Your task to perform on an android device: Open accessibility settings Image 0: 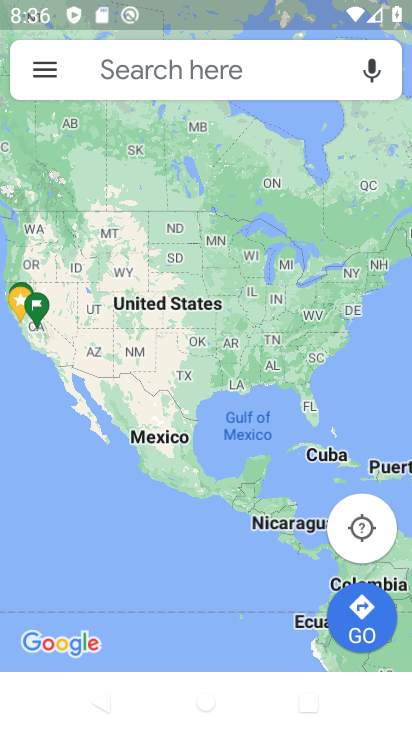
Step 0: press home button
Your task to perform on an android device: Open accessibility settings Image 1: 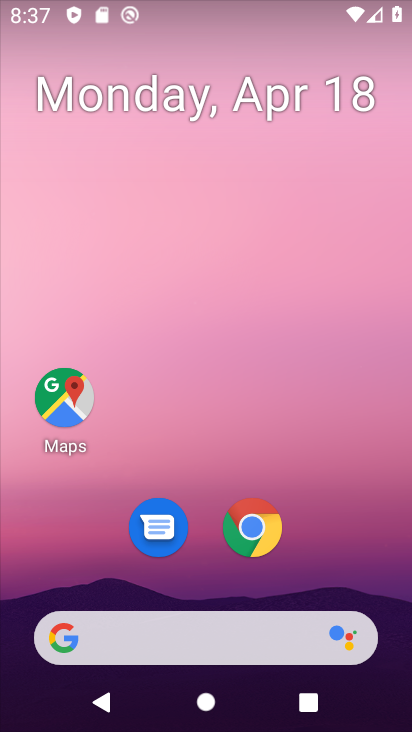
Step 1: drag from (317, 501) to (325, 98)
Your task to perform on an android device: Open accessibility settings Image 2: 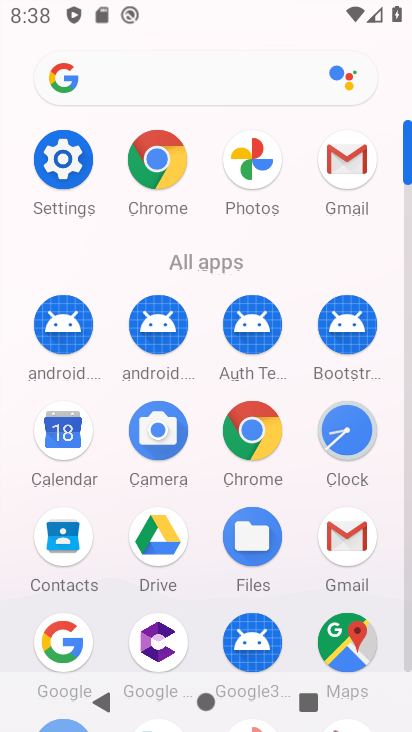
Step 2: drag from (296, 236) to (292, 33)
Your task to perform on an android device: Open accessibility settings Image 3: 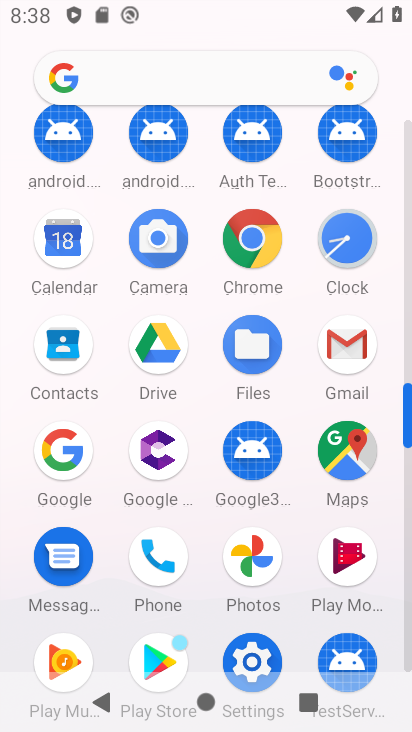
Step 3: click (247, 654)
Your task to perform on an android device: Open accessibility settings Image 4: 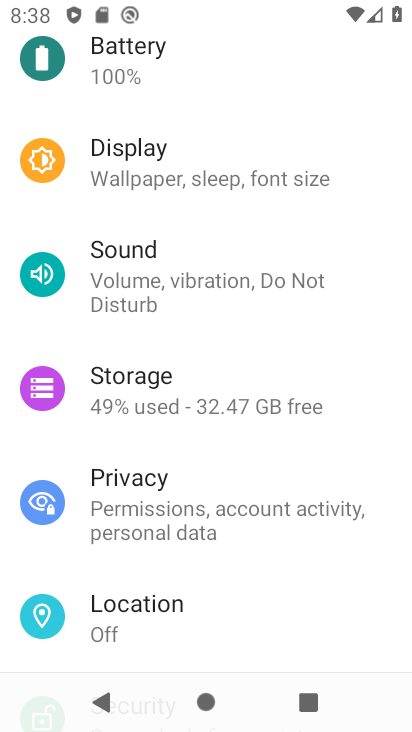
Step 4: drag from (310, 594) to (328, 65)
Your task to perform on an android device: Open accessibility settings Image 5: 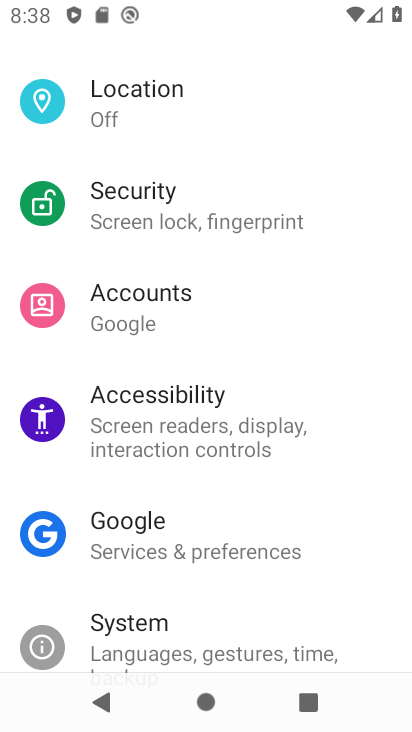
Step 5: drag from (311, 580) to (313, 146)
Your task to perform on an android device: Open accessibility settings Image 6: 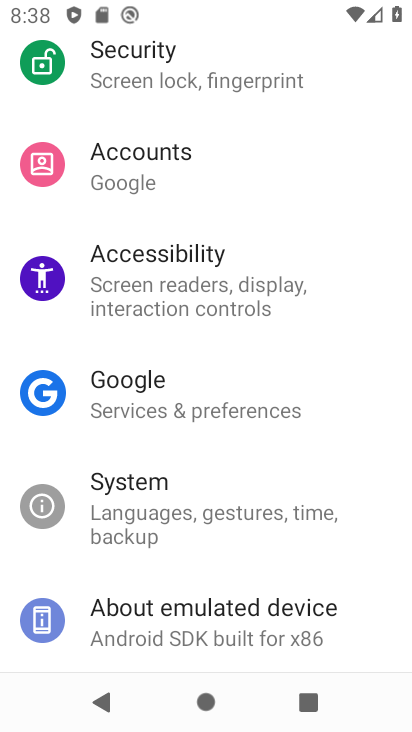
Step 6: click (181, 276)
Your task to perform on an android device: Open accessibility settings Image 7: 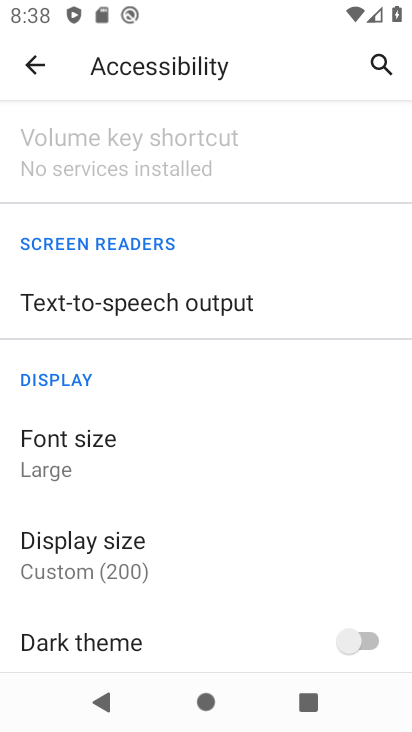
Step 7: task complete